Your task to perform on an android device: turn on notifications settings in the gmail app Image 0: 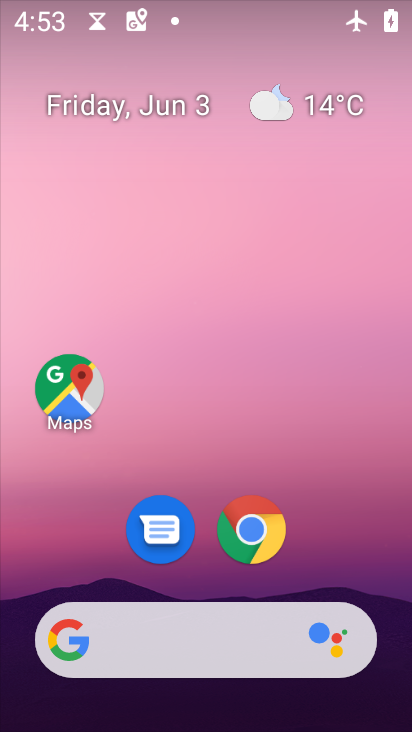
Step 0: drag from (330, 517) to (295, 12)
Your task to perform on an android device: turn on notifications settings in the gmail app Image 1: 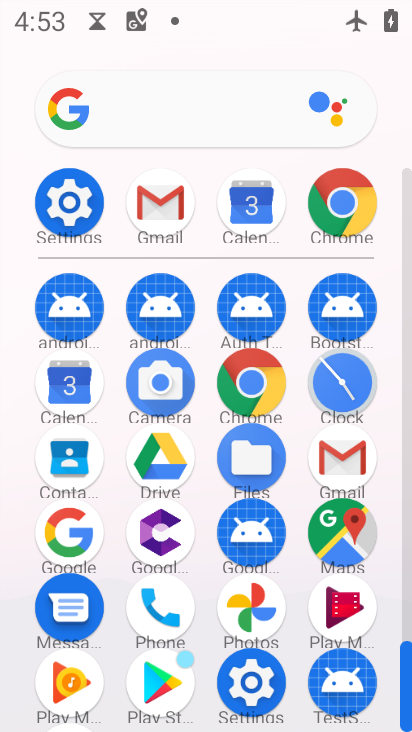
Step 1: click (165, 215)
Your task to perform on an android device: turn on notifications settings in the gmail app Image 2: 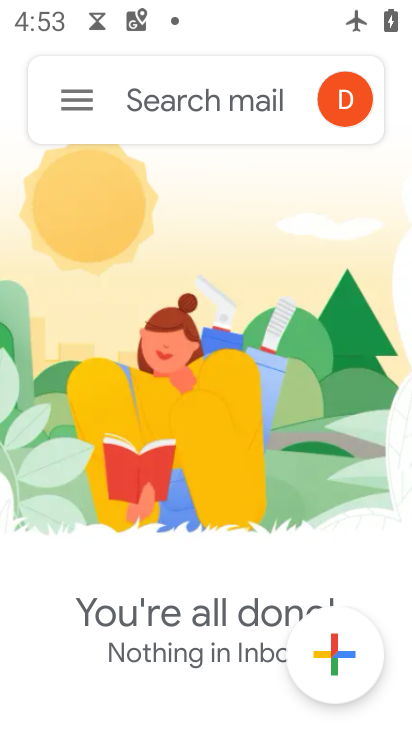
Step 2: click (71, 90)
Your task to perform on an android device: turn on notifications settings in the gmail app Image 3: 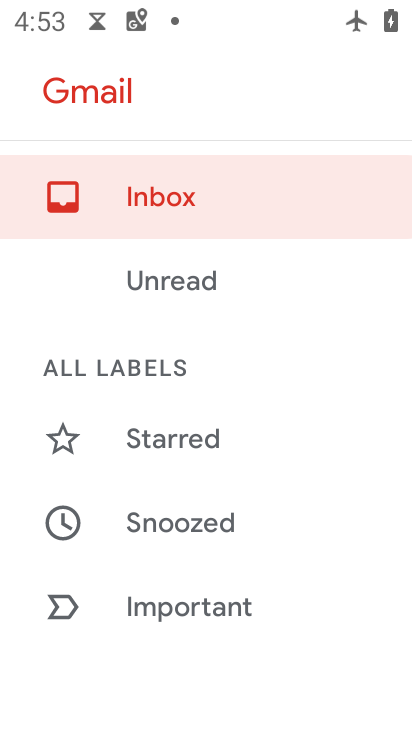
Step 3: drag from (188, 625) to (210, 80)
Your task to perform on an android device: turn on notifications settings in the gmail app Image 4: 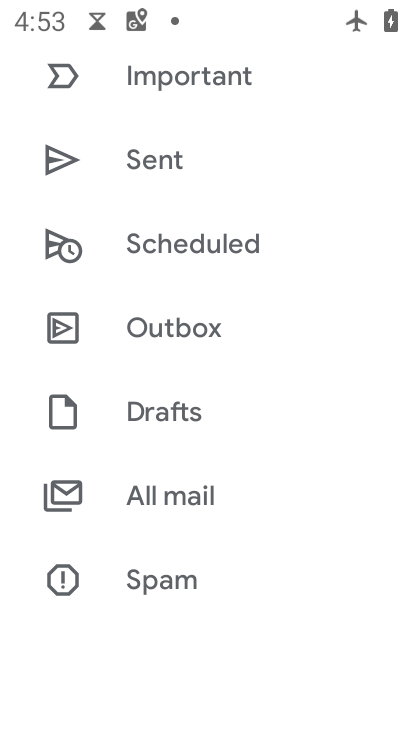
Step 4: drag from (219, 622) to (224, 48)
Your task to perform on an android device: turn on notifications settings in the gmail app Image 5: 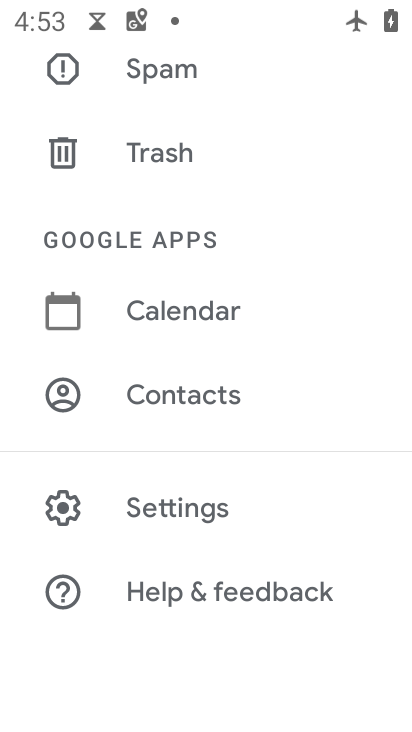
Step 5: click (157, 530)
Your task to perform on an android device: turn on notifications settings in the gmail app Image 6: 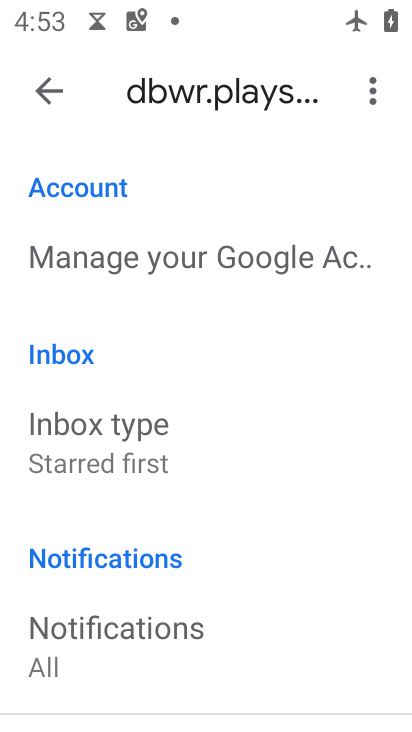
Step 6: click (82, 622)
Your task to perform on an android device: turn on notifications settings in the gmail app Image 7: 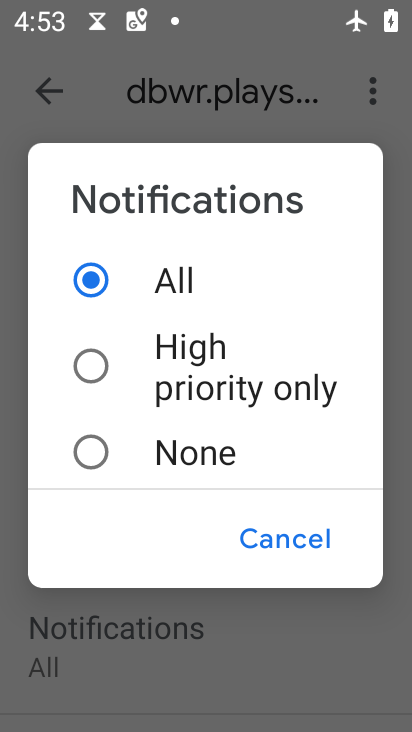
Step 7: task complete